Your task to perform on an android device: change the clock display to digital Image 0: 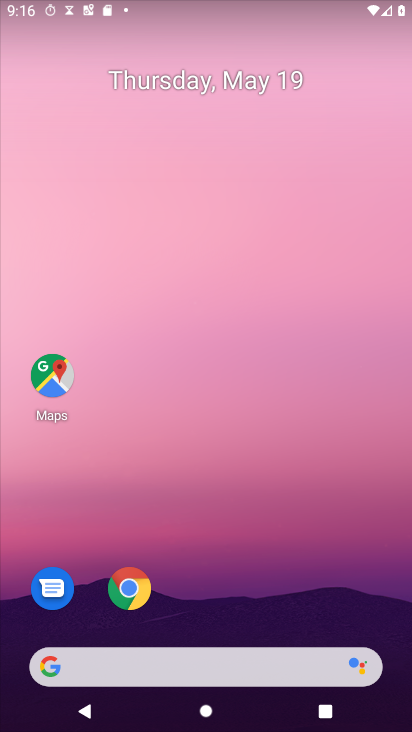
Step 0: press home button
Your task to perform on an android device: change the clock display to digital Image 1: 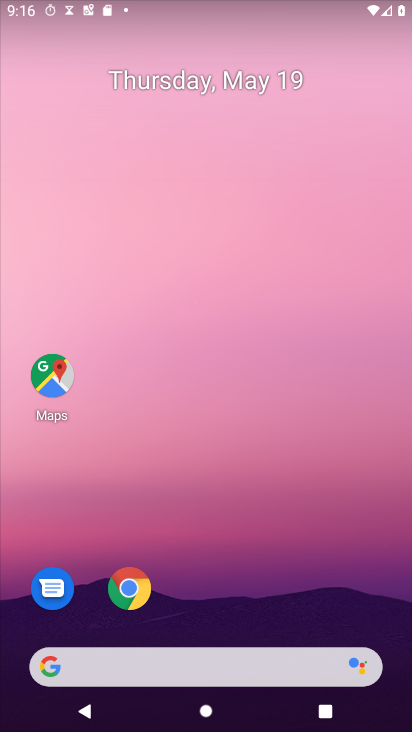
Step 1: drag from (169, 672) to (266, 112)
Your task to perform on an android device: change the clock display to digital Image 2: 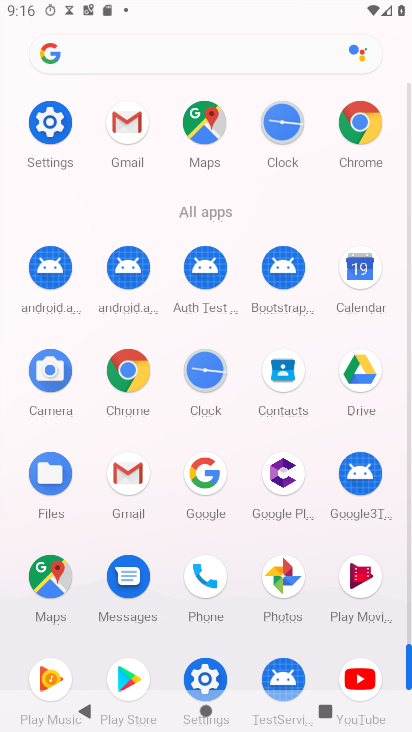
Step 2: click (280, 134)
Your task to perform on an android device: change the clock display to digital Image 3: 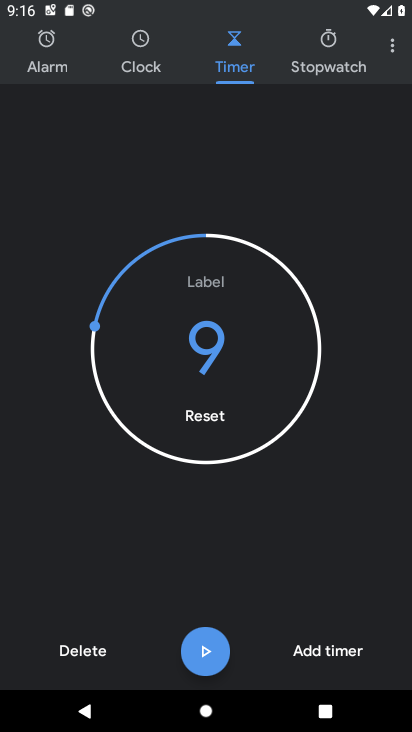
Step 3: click (393, 46)
Your task to perform on an android device: change the clock display to digital Image 4: 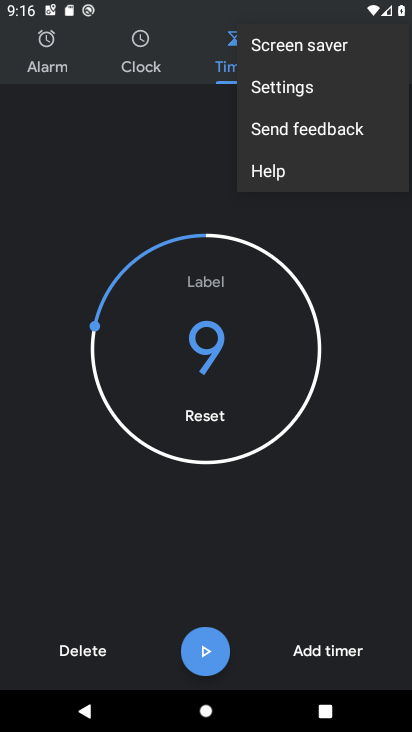
Step 4: click (286, 90)
Your task to perform on an android device: change the clock display to digital Image 5: 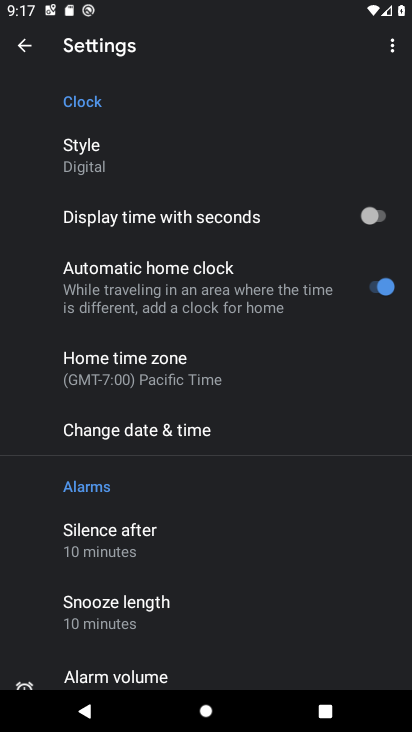
Step 5: task complete